Your task to perform on an android device: change your default location settings in chrome Image 0: 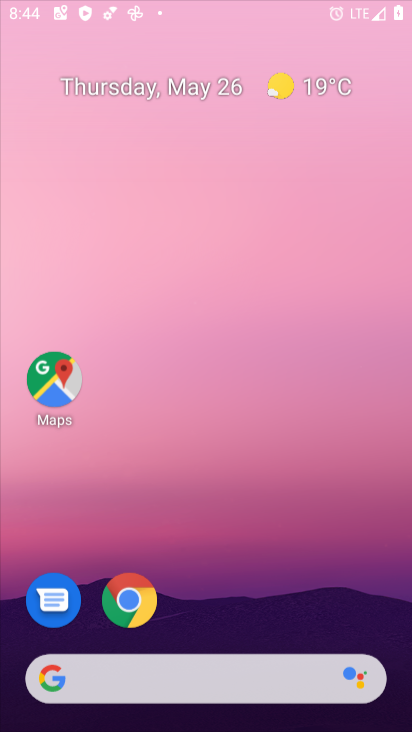
Step 0: press home button
Your task to perform on an android device: change your default location settings in chrome Image 1: 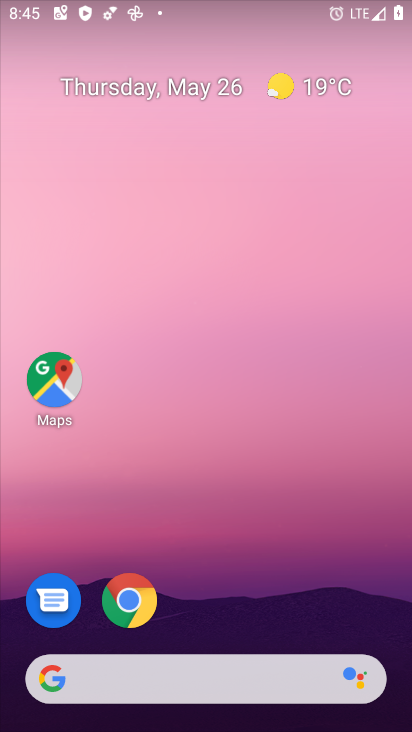
Step 1: click (138, 608)
Your task to perform on an android device: change your default location settings in chrome Image 2: 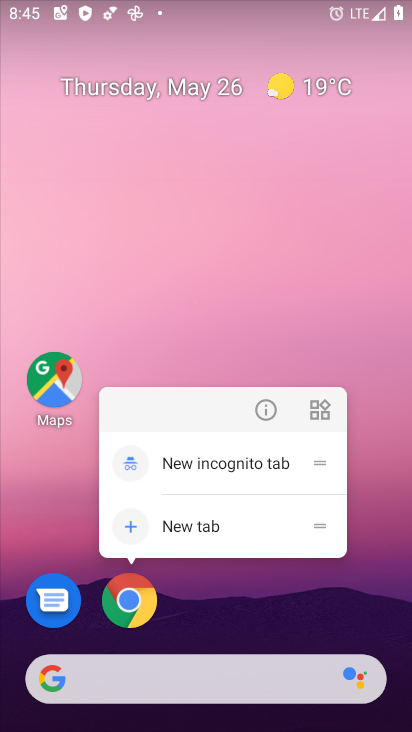
Step 2: click (305, 588)
Your task to perform on an android device: change your default location settings in chrome Image 3: 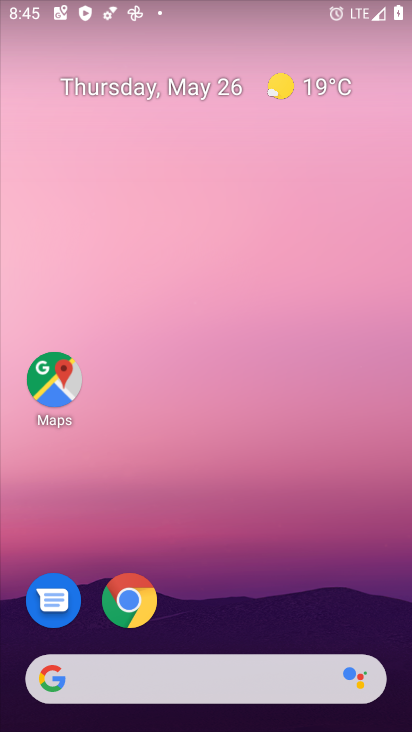
Step 3: drag from (303, 617) to (306, 97)
Your task to perform on an android device: change your default location settings in chrome Image 4: 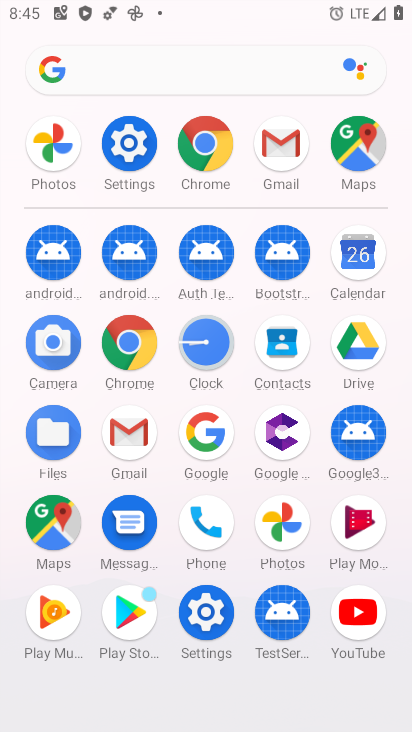
Step 4: click (205, 127)
Your task to perform on an android device: change your default location settings in chrome Image 5: 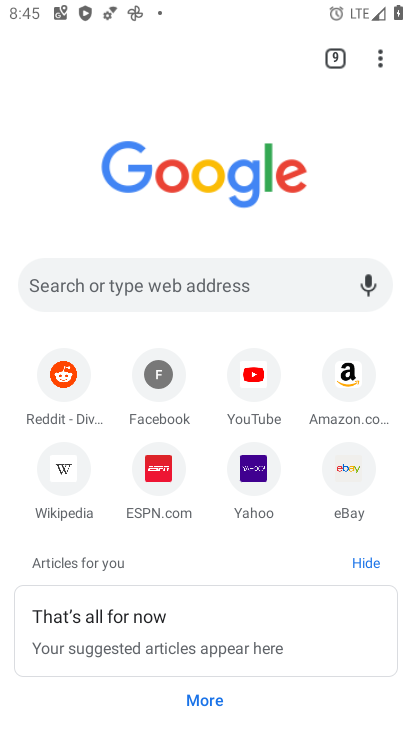
Step 5: drag from (384, 59) to (192, 492)
Your task to perform on an android device: change your default location settings in chrome Image 6: 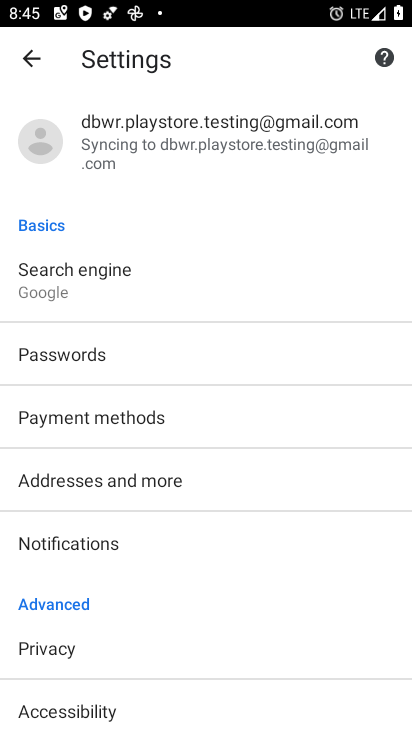
Step 6: drag from (222, 591) to (210, 250)
Your task to perform on an android device: change your default location settings in chrome Image 7: 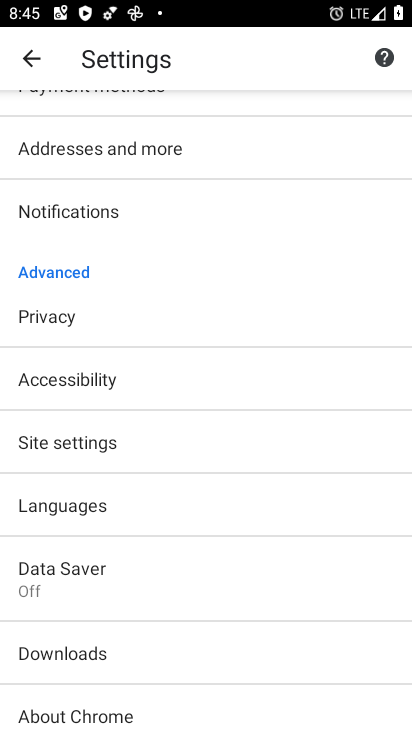
Step 7: click (62, 444)
Your task to perform on an android device: change your default location settings in chrome Image 8: 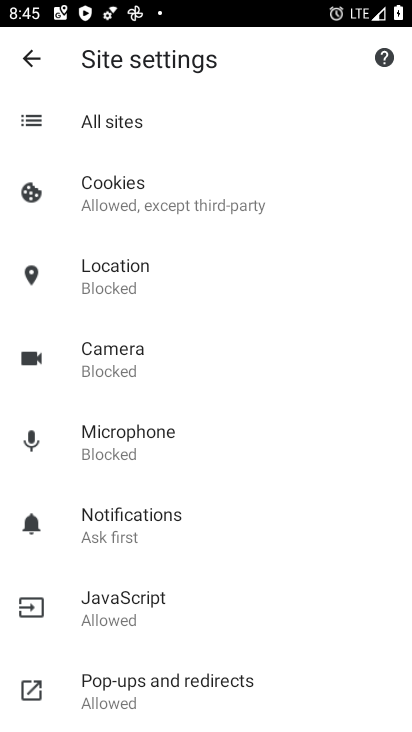
Step 8: click (114, 278)
Your task to perform on an android device: change your default location settings in chrome Image 9: 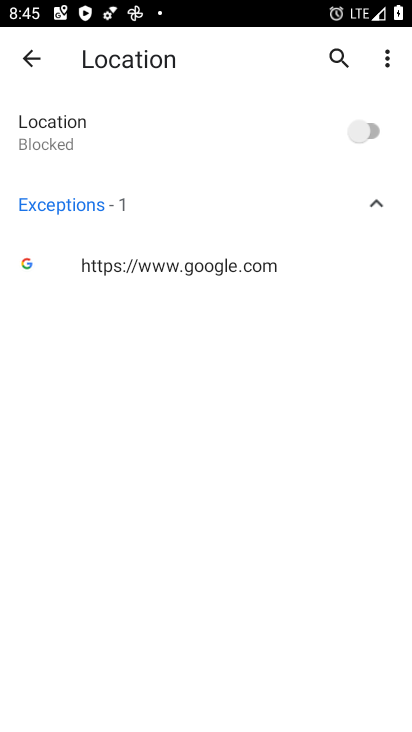
Step 9: click (374, 122)
Your task to perform on an android device: change your default location settings in chrome Image 10: 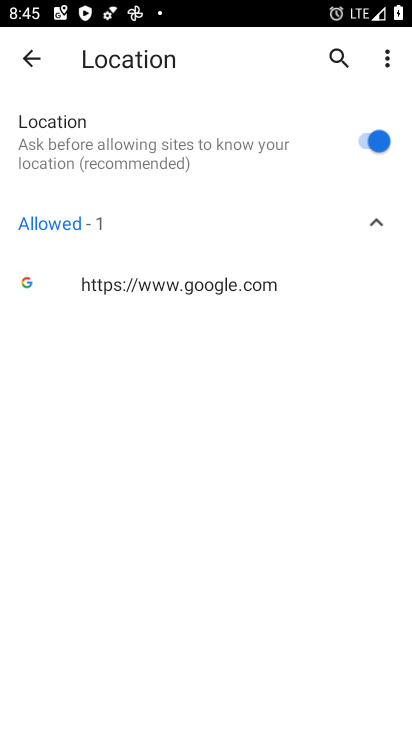
Step 10: task complete